Your task to perform on an android device: open chrome and create a bookmark for the current page Image 0: 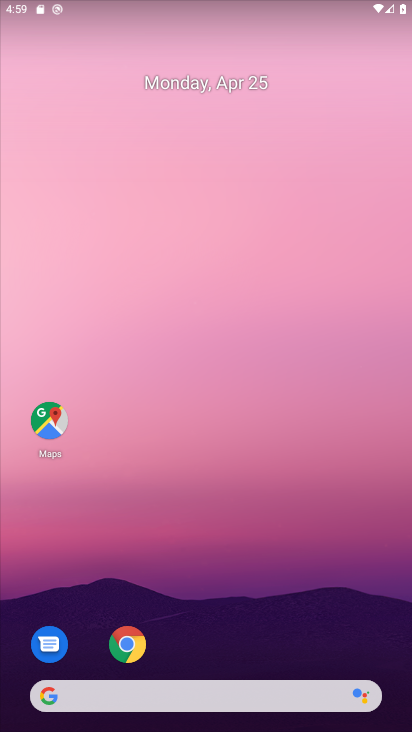
Step 0: click (131, 642)
Your task to perform on an android device: open chrome and create a bookmark for the current page Image 1: 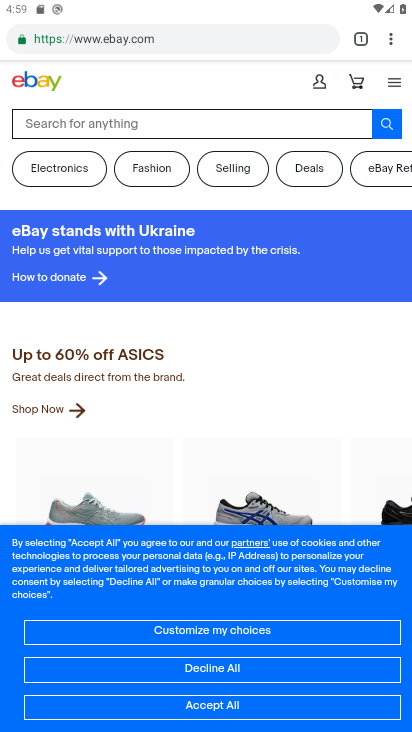
Step 1: click (387, 33)
Your task to perform on an android device: open chrome and create a bookmark for the current page Image 2: 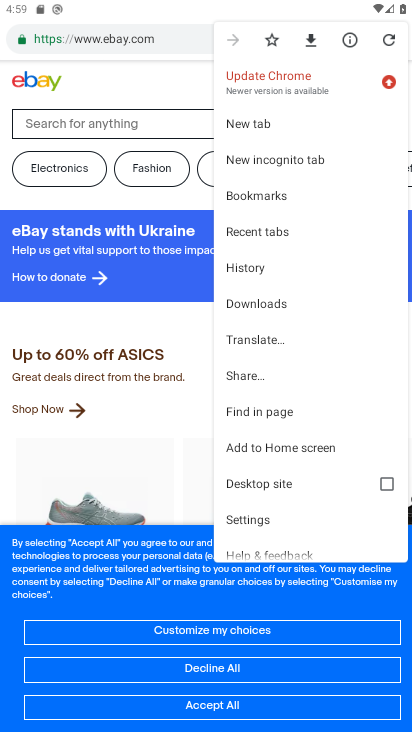
Step 2: click (270, 42)
Your task to perform on an android device: open chrome and create a bookmark for the current page Image 3: 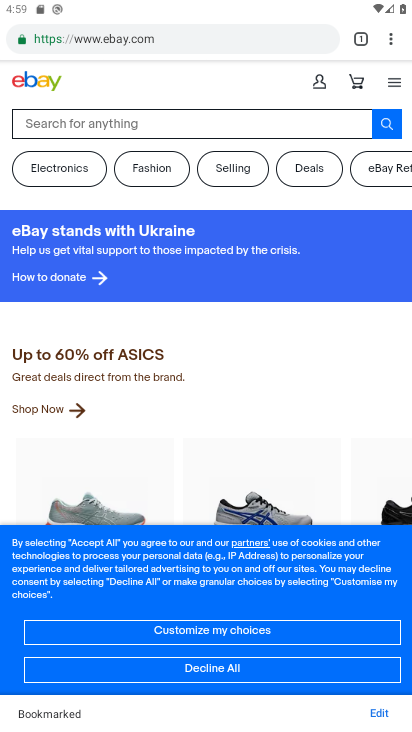
Step 3: task complete